Your task to perform on an android device: Open the Play Movies app and select the watchlist tab. Image 0: 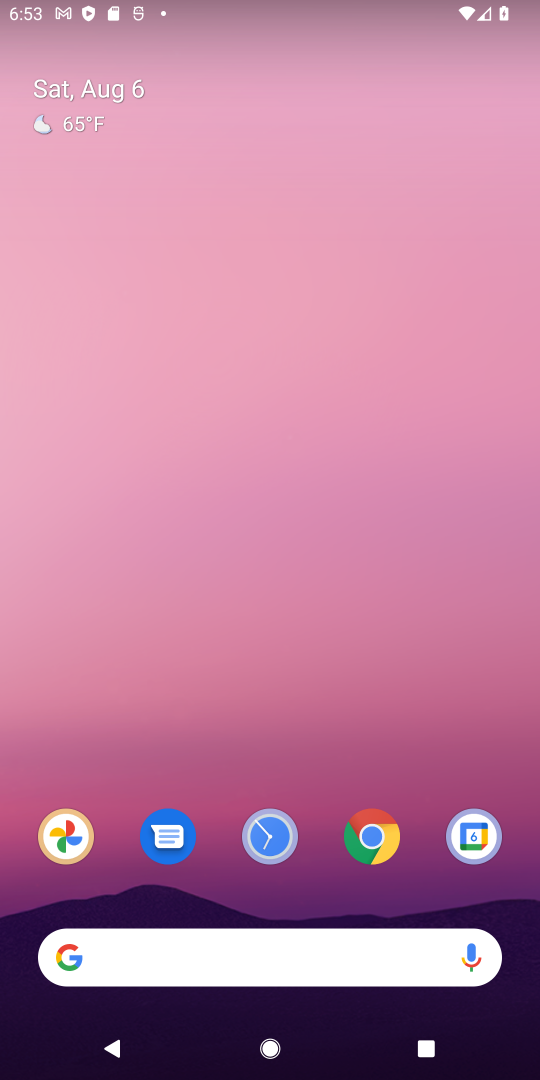
Step 0: drag from (437, 889) to (261, 91)
Your task to perform on an android device: Open the Play Movies app and select the watchlist tab. Image 1: 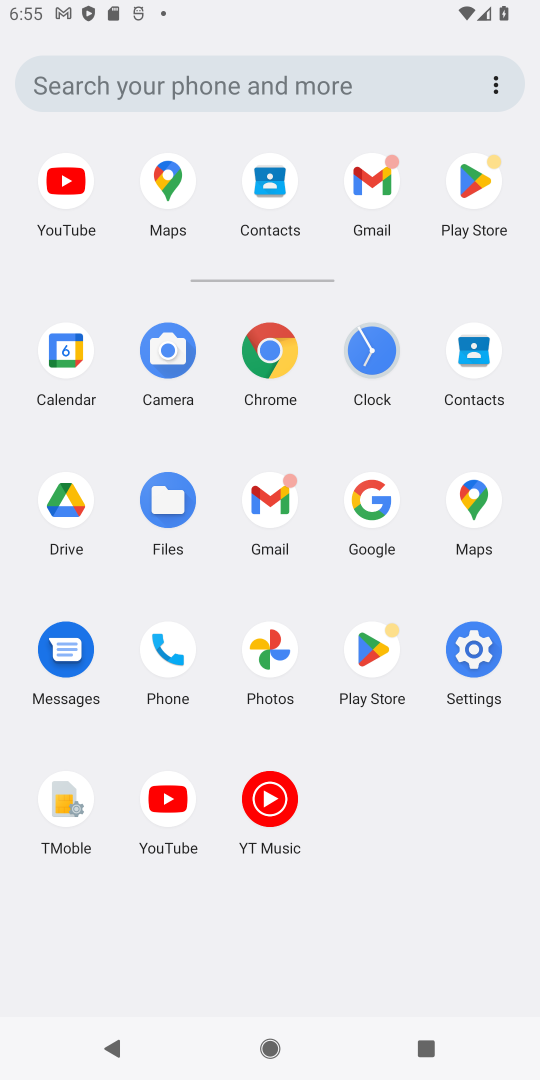
Step 1: task complete